Your task to perform on an android device: open the mobile data screen to see how much data has been used Image 0: 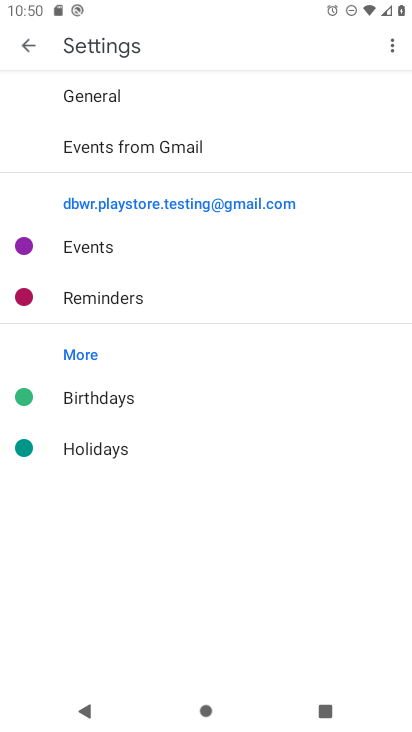
Step 0: press home button
Your task to perform on an android device: open the mobile data screen to see how much data has been used Image 1: 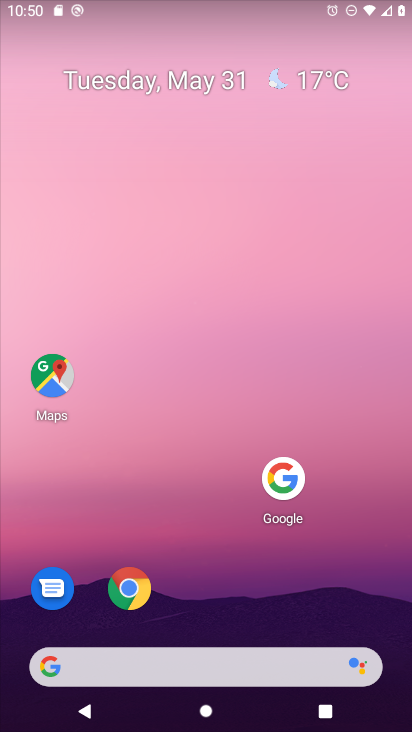
Step 1: drag from (233, 663) to (300, 163)
Your task to perform on an android device: open the mobile data screen to see how much data has been used Image 2: 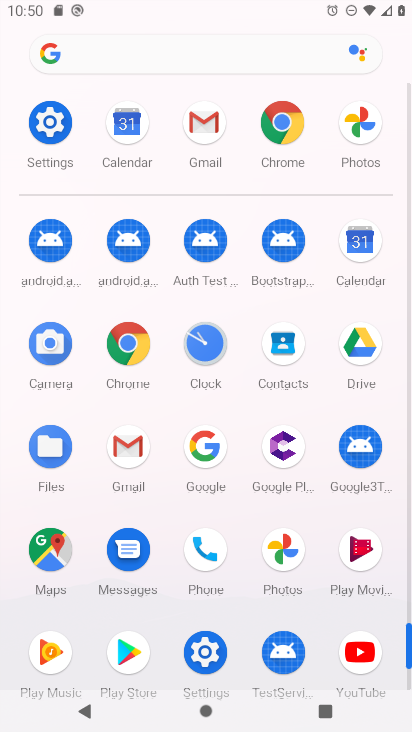
Step 2: click (53, 124)
Your task to perform on an android device: open the mobile data screen to see how much data has been used Image 3: 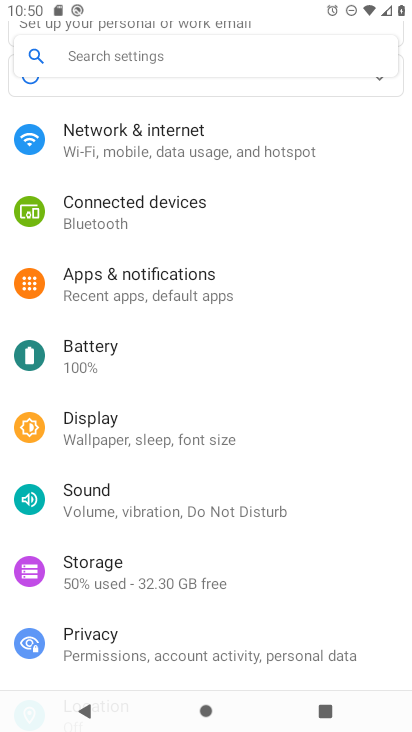
Step 3: click (148, 143)
Your task to perform on an android device: open the mobile data screen to see how much data has been used Image 4: 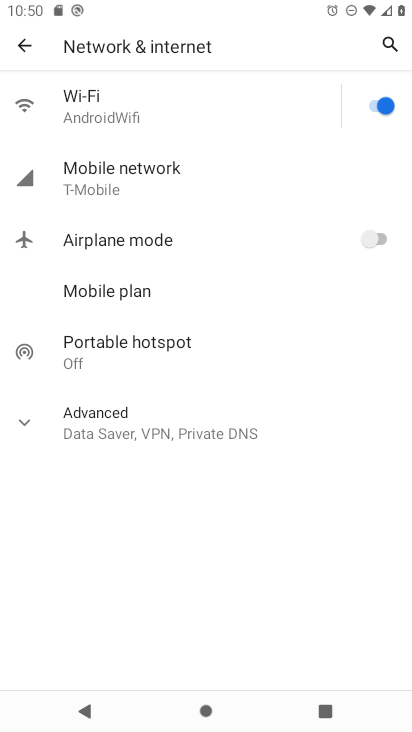
Step 4: click (138, 172)
Your task to perform on an android device: open the mobile data screen to see how much data has been used Image 5: 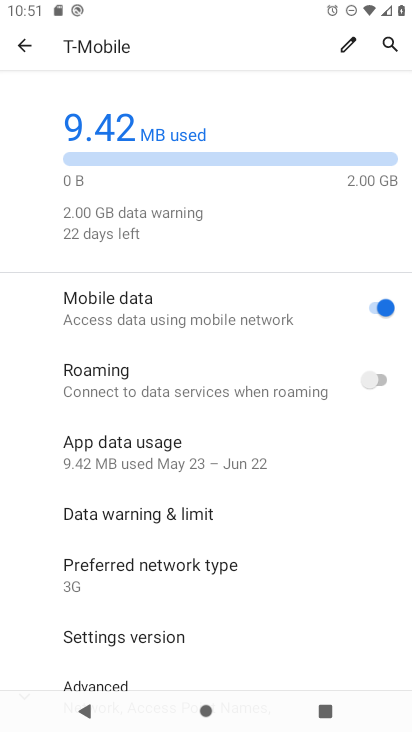
Step 5: task complete